Your task to perform on an android device: Open Chrome and go to settings Image 0: 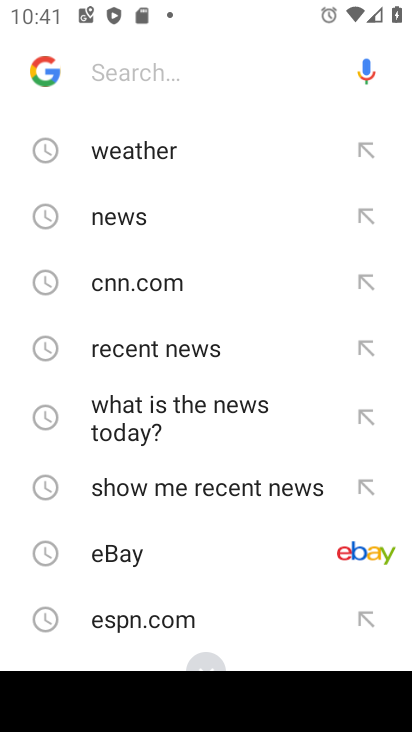
Step 0: press home button
Your task to perform on an android device: Open Chrome and go to settings Image 1: 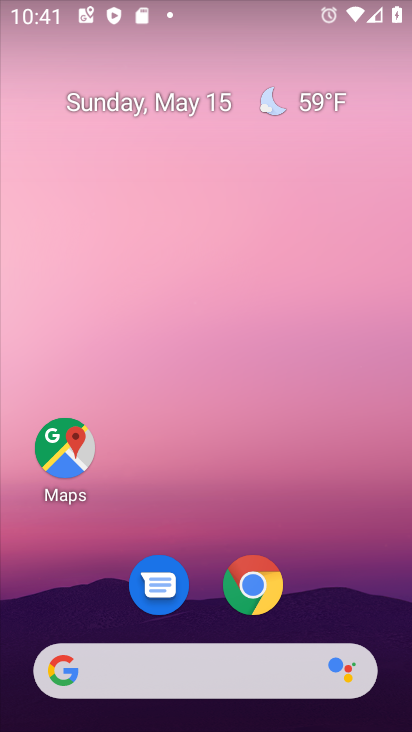
Step 1: click (265, 583)
Your task to perform on an android device: Open Chrome and go to settings Image 2: 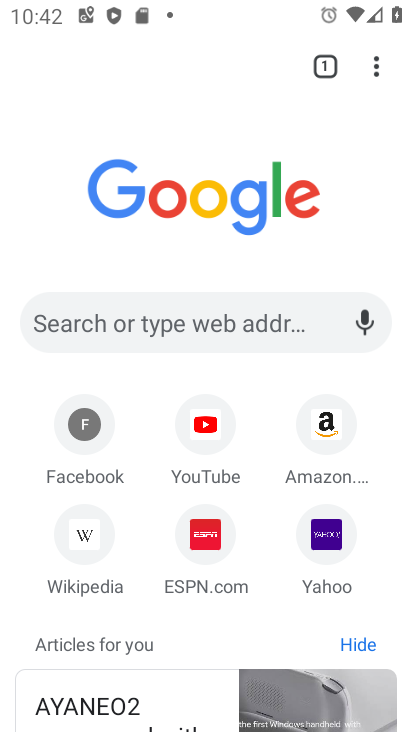
Step 2: click (375, 66)
Your task to perform on an android device: Open Chrome and go to settings Image 3: 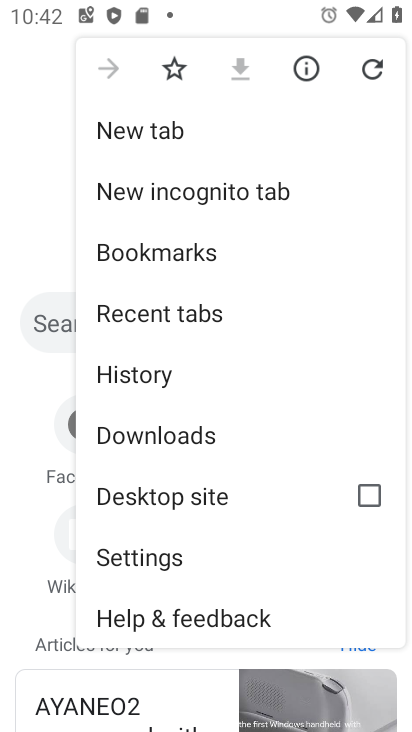
Step 3: click (175, 551)
Your task to perform on an android device: Open Chrome and go to settings Image 4: 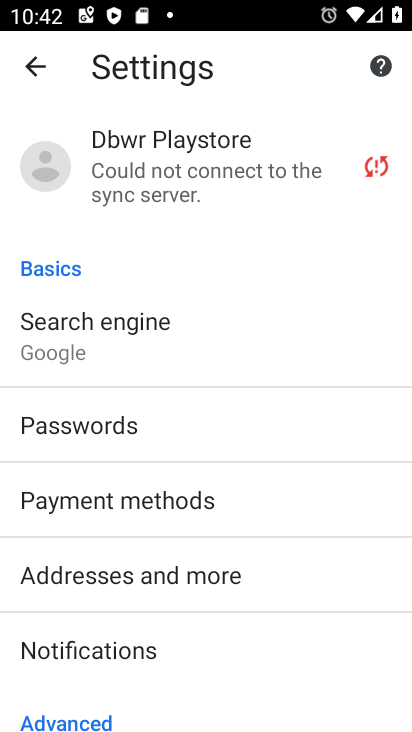
Step 4: task complete